Your task to perform on an android device: Open Google Chrome Image 0: 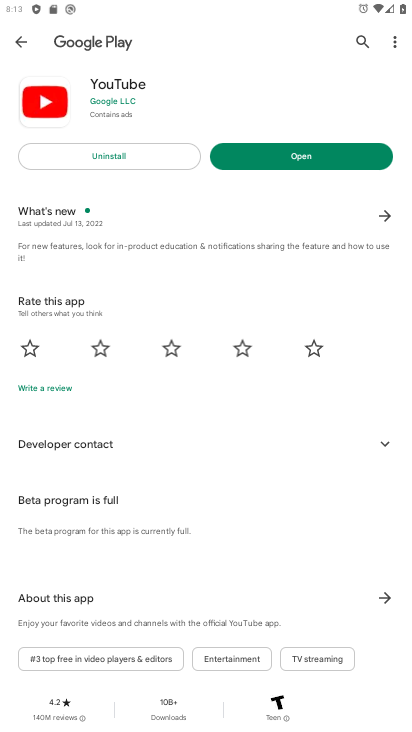
Step 0: press home button
Your task to perform on an android device: Open Google Chrome Image 1: 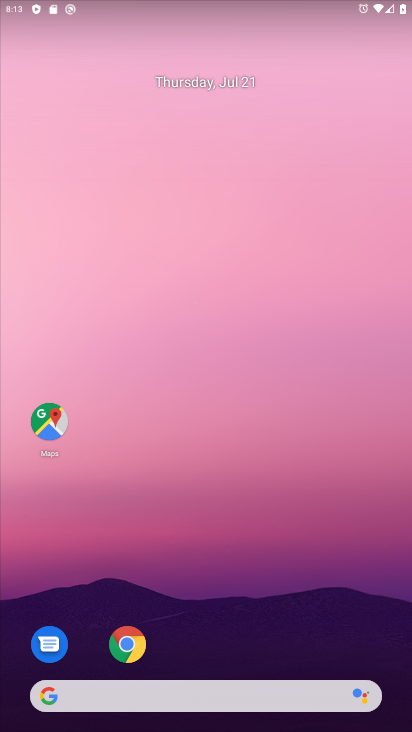
Step 1: drag from (365, 601) to (379, 99)
Your task to perform on an android device: Open Google Chrome Image 2: 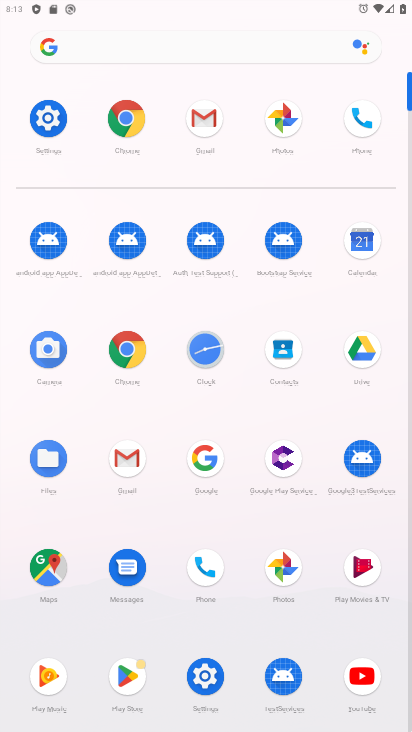
Step 2: click (128, 350)
Your task to perform on an android device: Open Google Chrome Image 3: 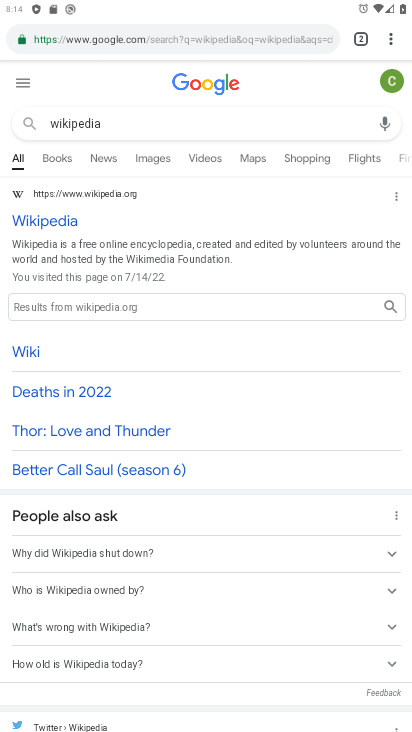
Step 3: task complete